Your task to perform on an android device: choose inbox layout in the gmail app Image 0: 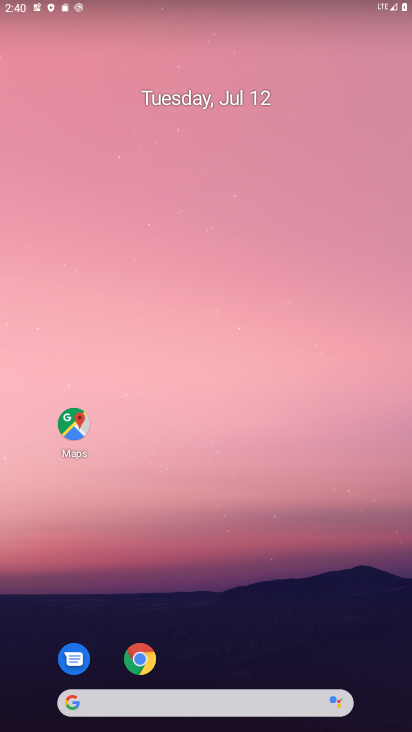
Step 0: drag from (221, 691) to (218, 98)
Your task to perform on an android device: choose inbox layout in the gmail app Image 1: 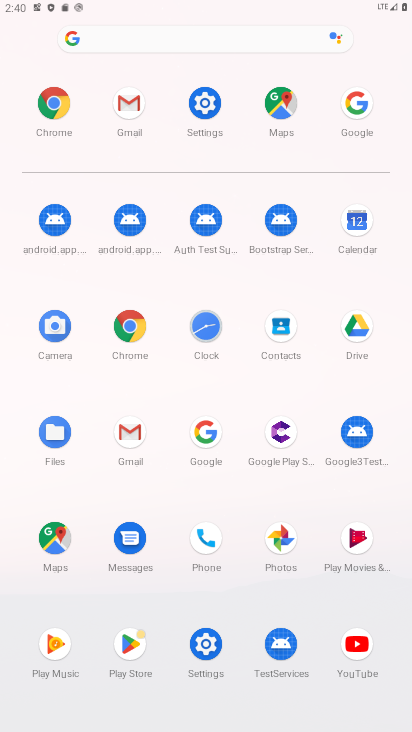
Step 1: click (123, 433)
Your task to perform on an android device: choose inbox layout in the gmail app Image 2: 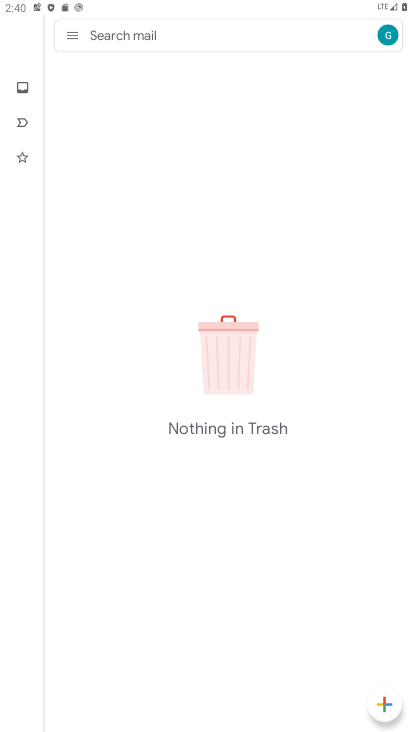
Step 2: click (70, 32)
Your task to perform on an android device: choose inbox layout in the gmail app Image 3: 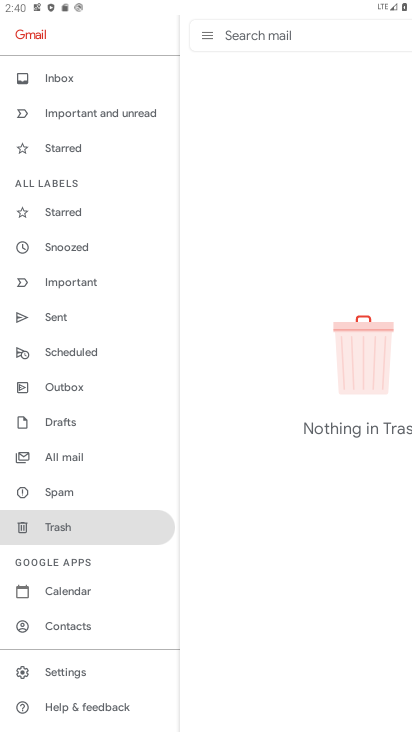
Step 3: click (81, 671)
Your task to perform on an android device: choose inbox layout in the gmail app Image 4: 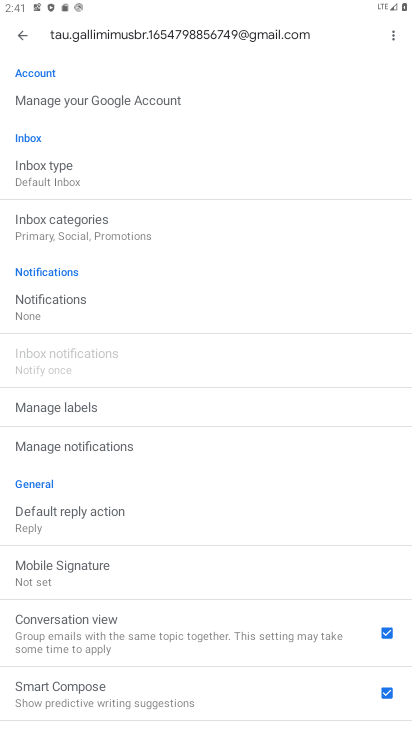
Step 4: click (60, 175)
Your task to perform on an android device: choose inbox layout in the gmail app Image 5: 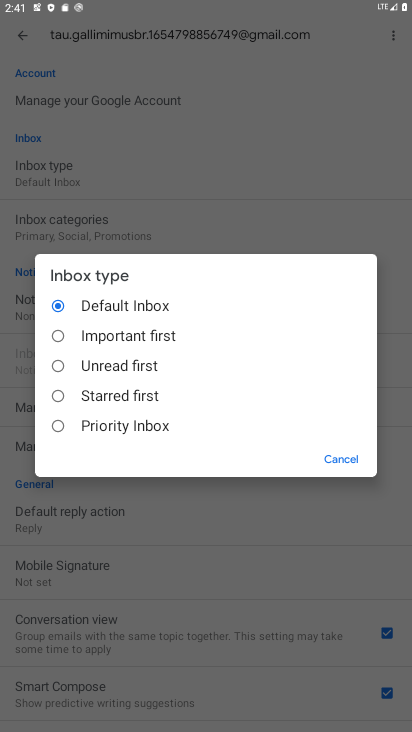
Step 5: click (58, 419)
Your task to perform on an android device: choose inbox layout in the gmail app Image 6: 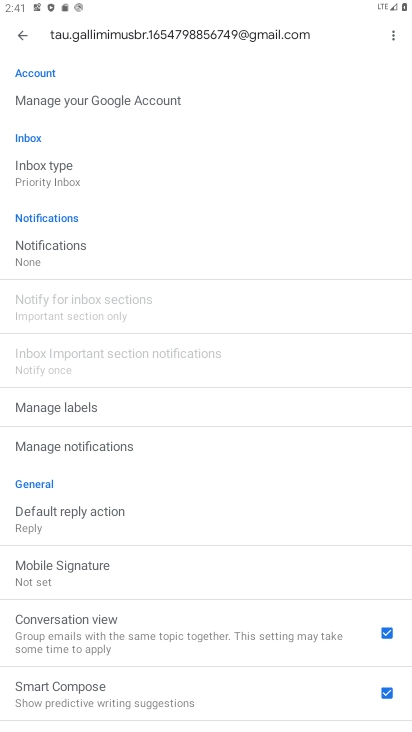
Step 6: task complete